Your task to perform on an android device: empty trash in google photos Image 0: 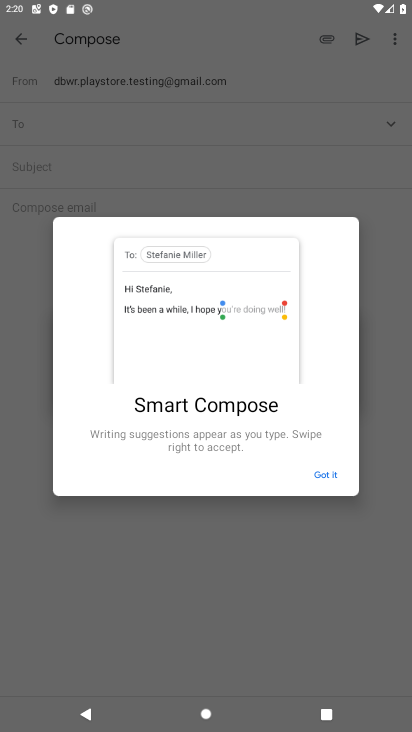
Step 0: press home button
Your task to perform on an android device: empty trash in google photos Image 1: 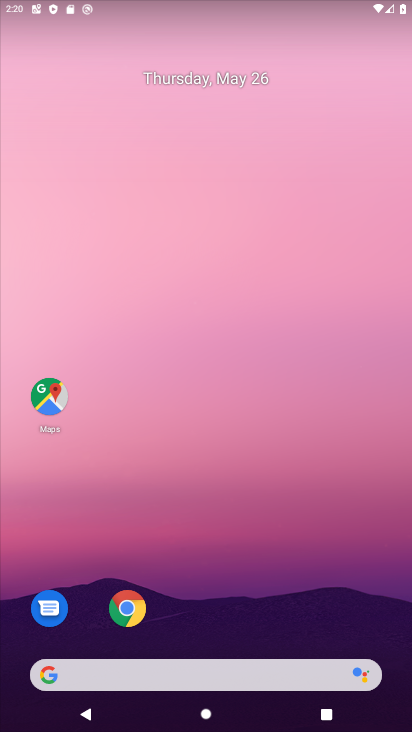
Step 1: drag from (306, 509) to (296, 80)
Your task to perform on an android device: empty trash in google photos Image 2: 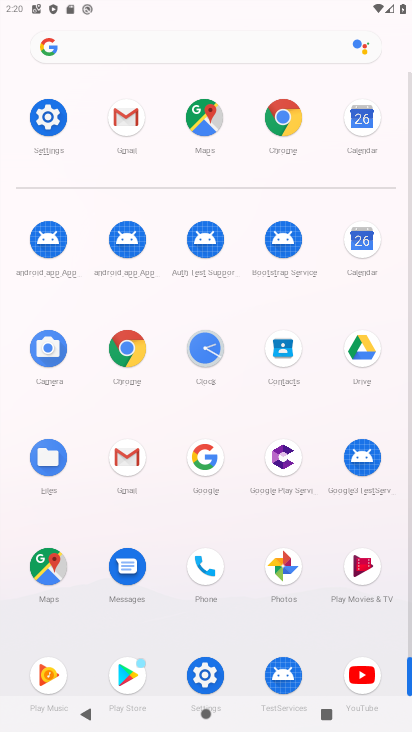
Step 2: click (285, 574)
Your task to perform on an android device: empty trash in google photos Image 3: 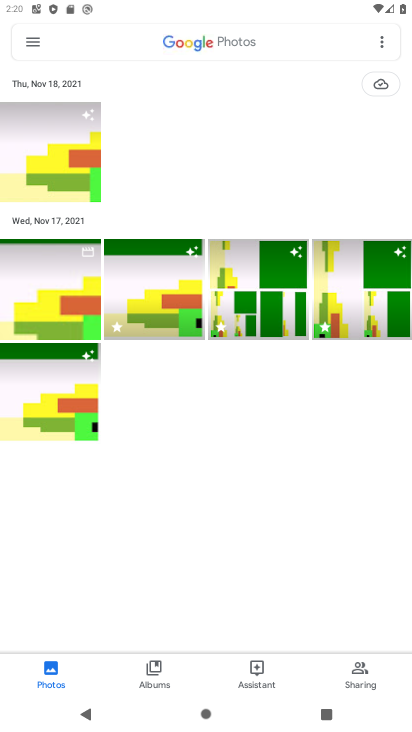
Step 3: click (20, 39)
Your task to perform on an android device: empty trash in google photos Image 4: 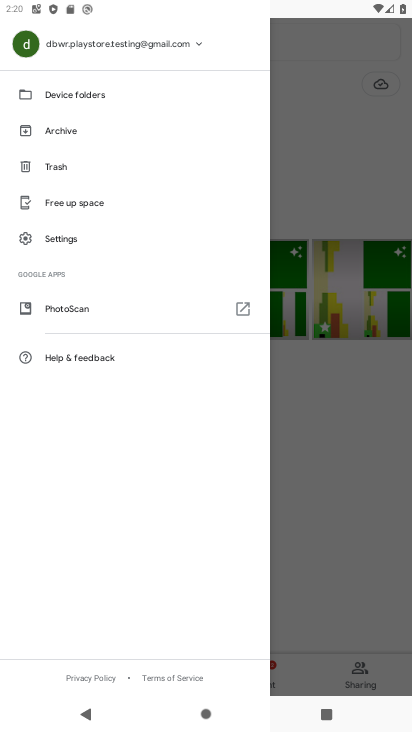
Step 4: click (58, 165)
Your task to perform on an android device: empty trash in google photos Image 5: 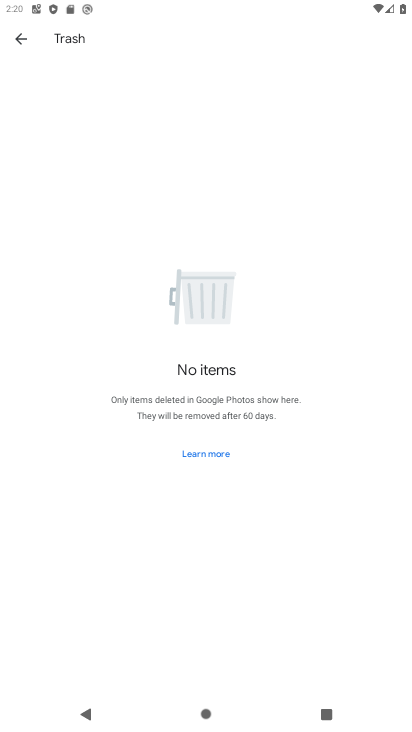
Step 5: task complete